Your task to perform on an android device: toggle data saver in the chrome app Image 0: 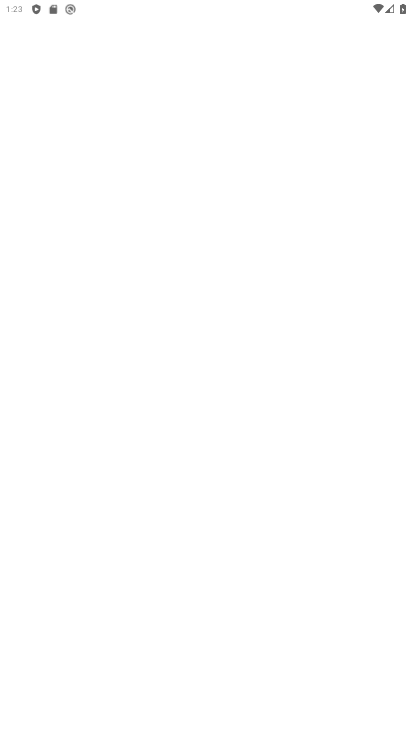
Step 0: drag from (287, 592) to (235, 37)
Your task to perform on an android device: toggle data saver in the chrome app Image 1: 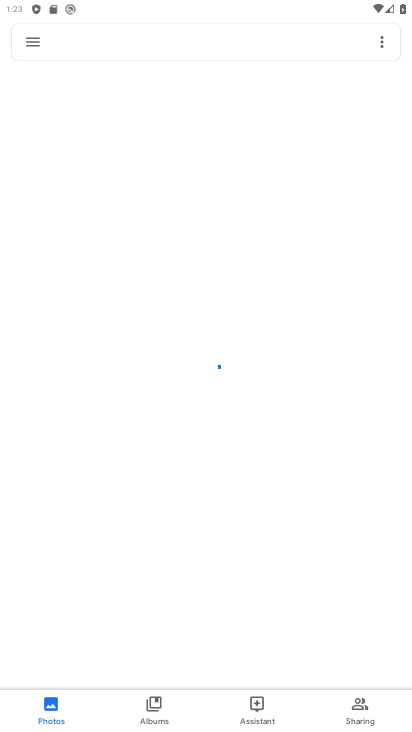
Step 1: press home button
Your task to perform on an android device: toggle data saver in the chrome app Image 2: 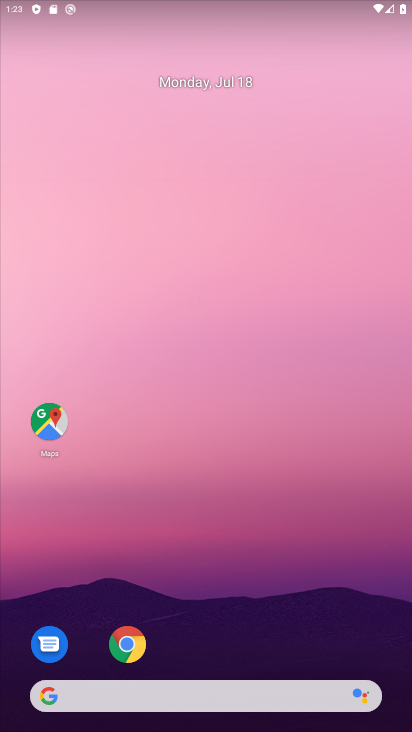
Step 2: click (126, 651)
Your task to perform on an android device: toggle data saver in the chrome app Image 3: 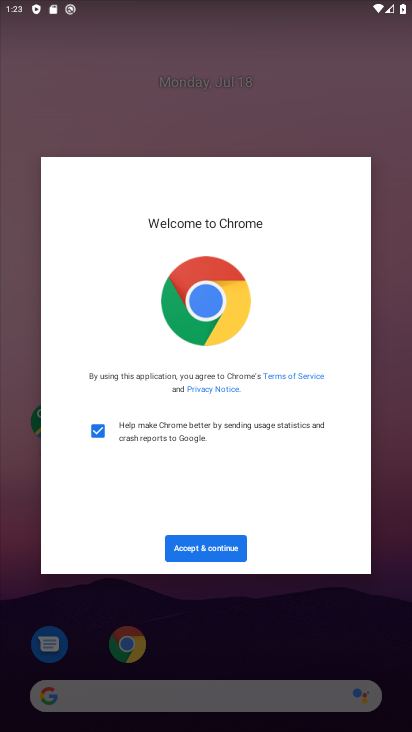
Step 3: click (225, 546)
Your task to perform on an android device: toggle data saver in the chrome app Image 4: 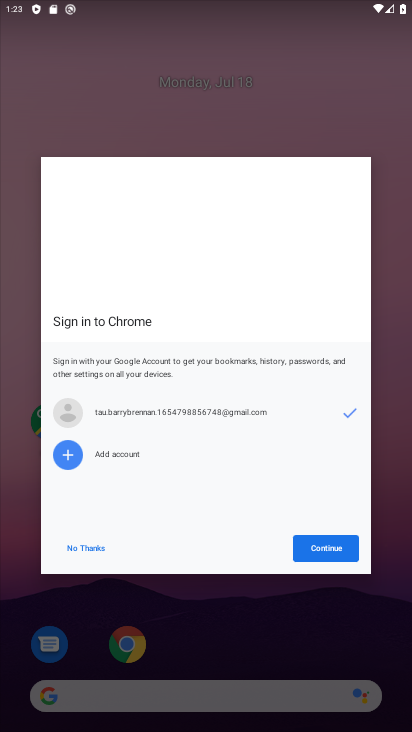
Step 4: click (318, 534)
Your task to perform on an android device: toggle data saver in the chrome app Image 5: 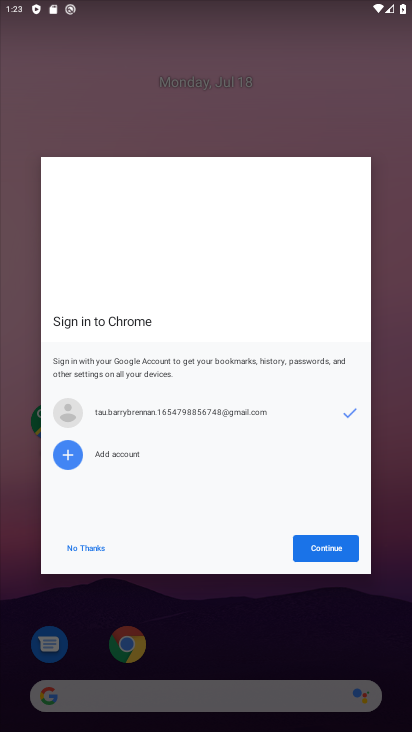
Step 5: click (318, 534)
Your task to perform on an android device: toggle data saver in the chrome app Image 6: 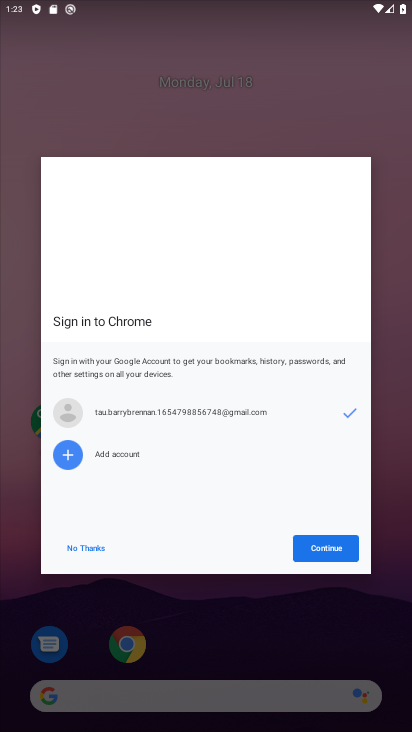
Step 6: click (331, 553)
Your task to perform on an android device: toggle data saver in the chrome app Image 7: 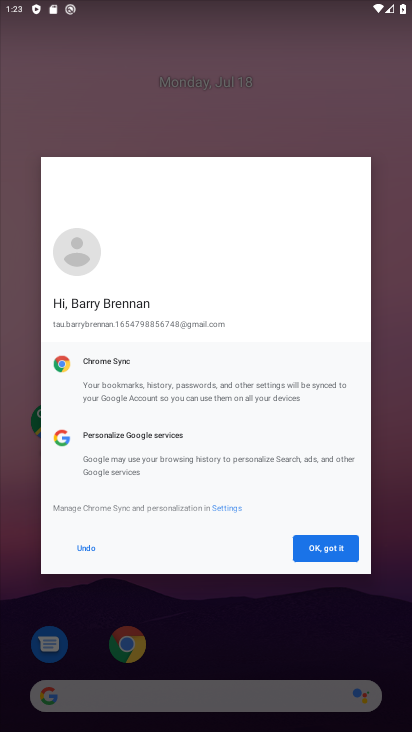
Step 7: click (325, 553)
Your task to perform on an android device: toggle data saver in the chrome app Image 8: 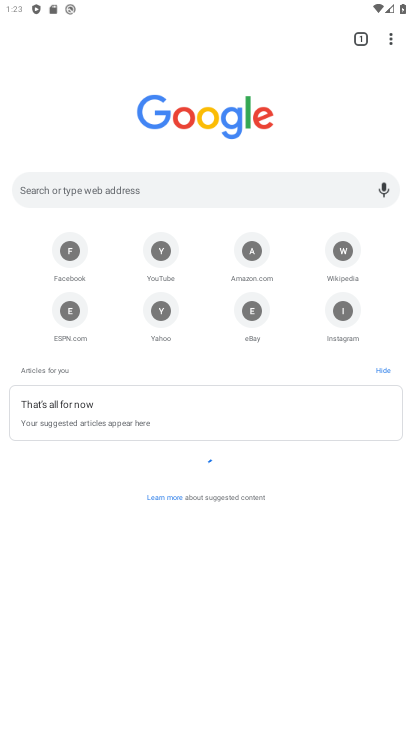
Step 8: click (392, 36)
Your task to perform on an android device: toggle data saver in the chrome app Image 9: 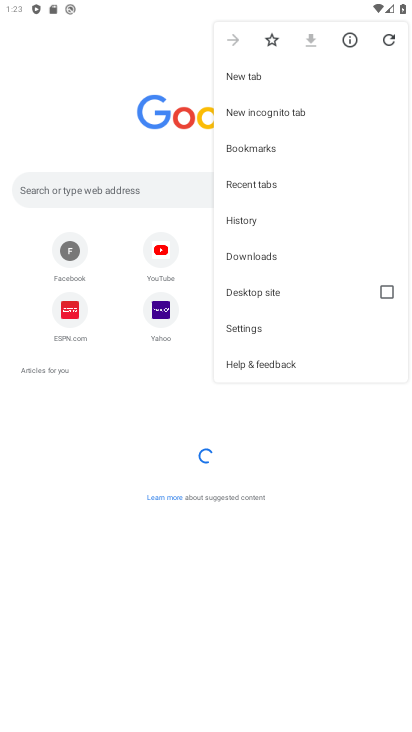
Step 9: click (240, 332)
Your task to perform on an android device: toggle data saver in the chrome app Image 10: 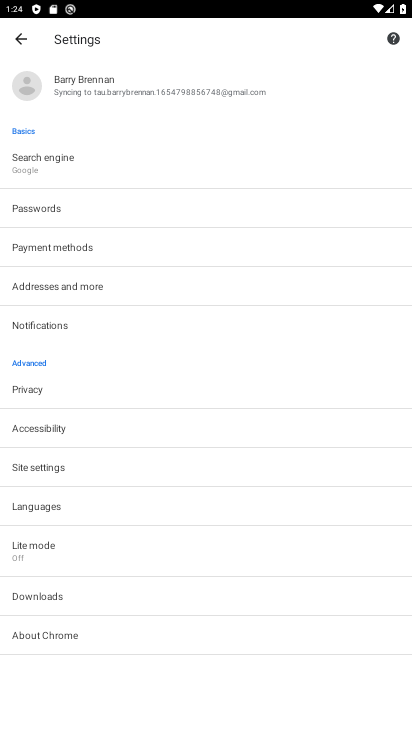
Step 10: click (100, 547)
Your task to perform on an android device: toggle data saver in the chrome app Image 11: 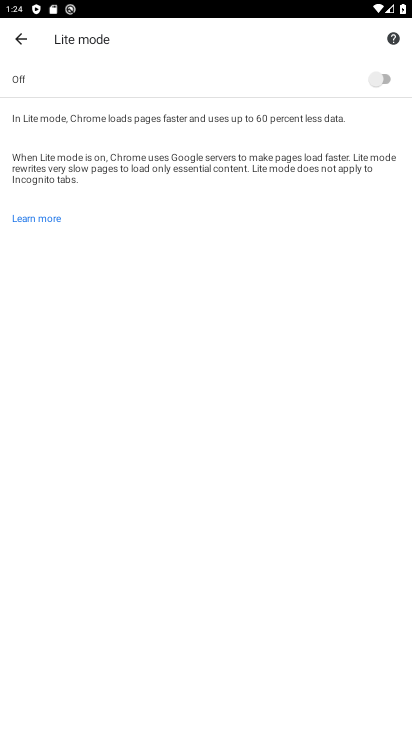
Step 11: click (374, 90)
Your task to perform on an android device: toggle data saver in the chrome app Image 12: 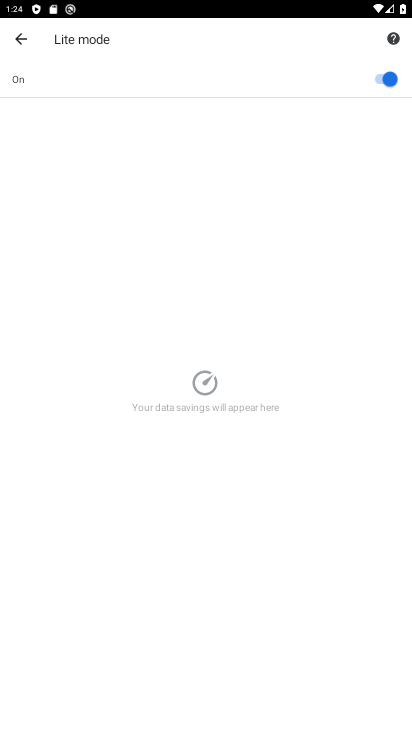
Step 12: task complete